Your task to perform on an android device: see creations saved in the google photos Image 0: 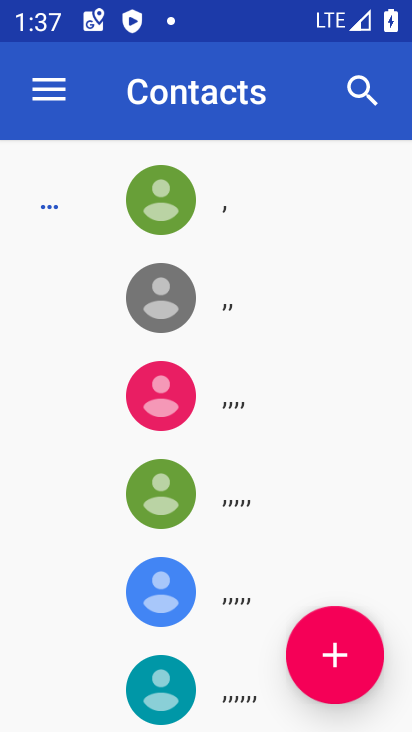
Step 0: drag from (244, 684) to (266, 336)
Your task to perform on an android device: see creations saved in the google photos Image 1: 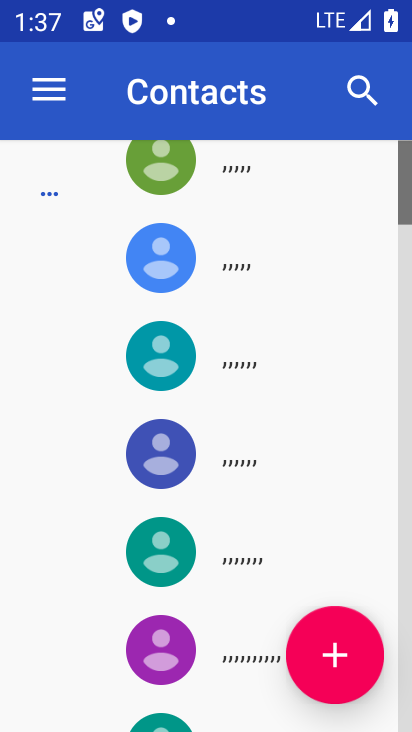
Step 1: press home button
Your task to perform on an android device: see creations saved in the google photos Image 2: 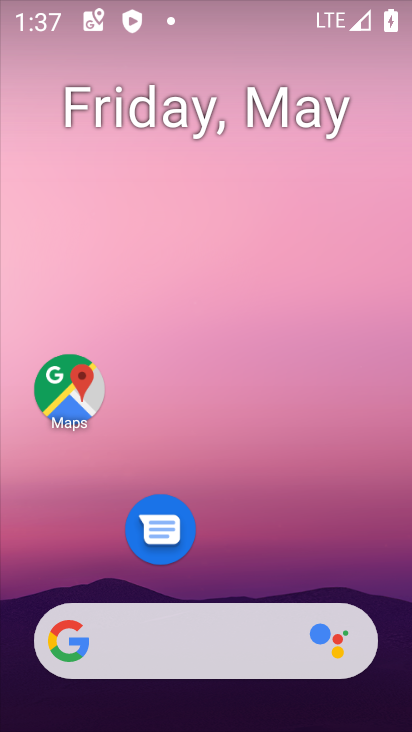
Step 2: drag from (245, 569) to (279, 6)
Your task to perform on an android device: see creations saved in the google photos Image 3: 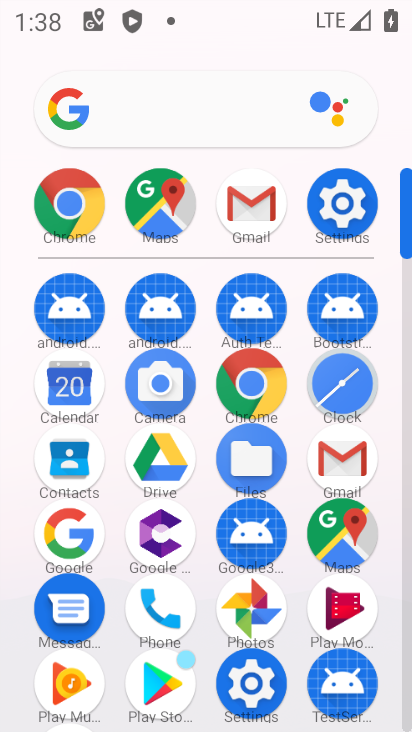
Step 3: click (263, 617)
Your task to perform on an android device: see creations saved in the google photos Image 4: 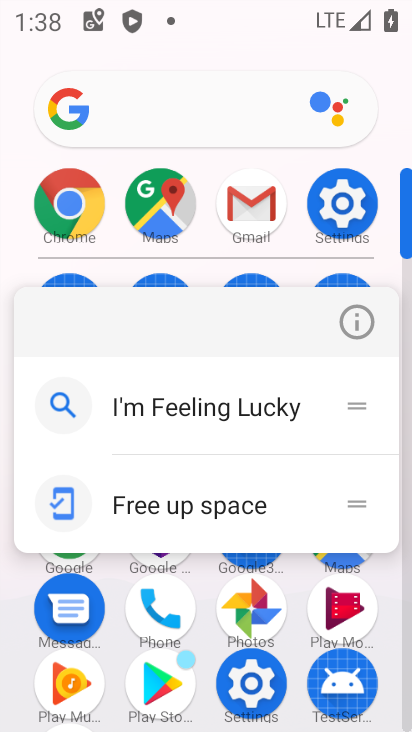
Step 4: click (345, 328)
Your task to perform on an android device: see creations saved in the google photos Image 5: 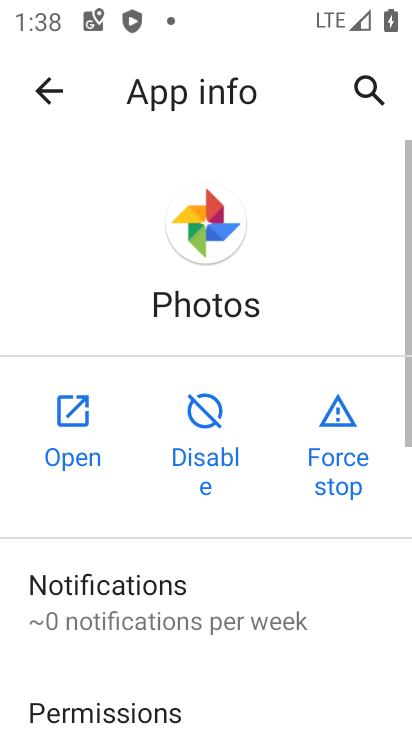
Step 5: click (71, 437)
Your task to perform on an android device: see creations saved in the google photos Image 6: 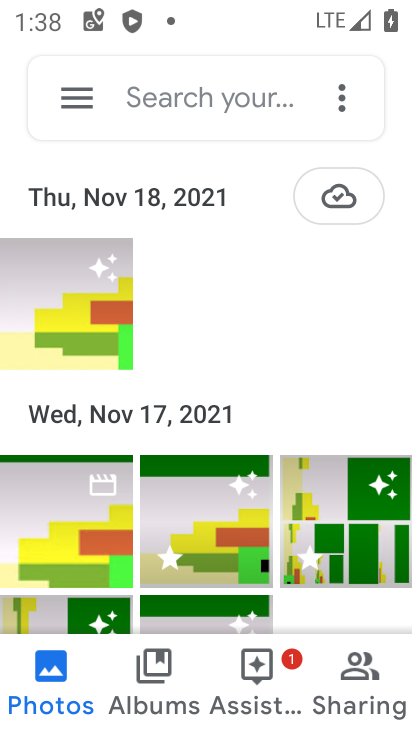
Step 6: click (169, 95)
Your task to perform on an android device: see creations saved in the google photos Image 7: 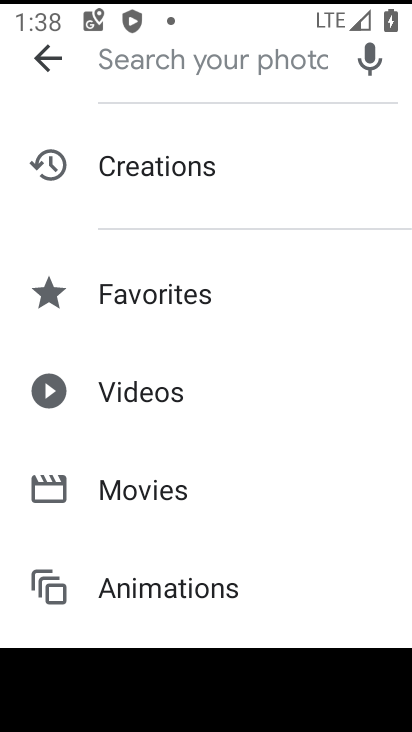
Step 7: click (162, 154)
Your task to perform on an android device: see creations saved in the google photos Image 8: 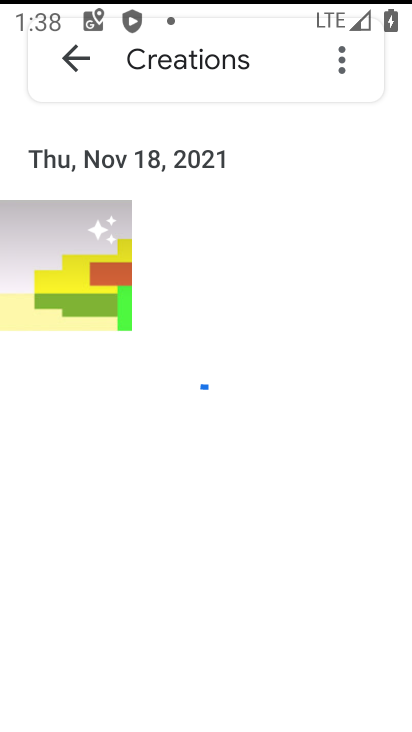
Step 8: drag from (151, 526) to (206, 215)
Your task to perform on an android device: see creations saved in the google photos Image 9: 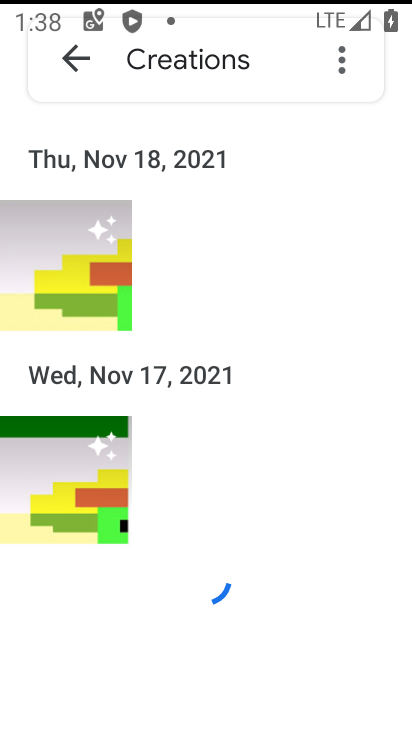
Step 9: drag from (188, 559) to (232, 251)
Your task to perform on an android device: see creations saved in the google photos Image 10: 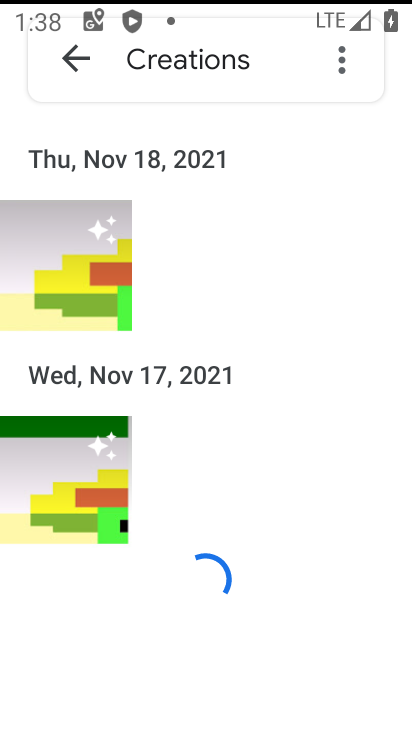
Step 10: drag from (179, 469) to (178, 191)
Your task to perform on an android device: see creations saved in the google photos Image 11: 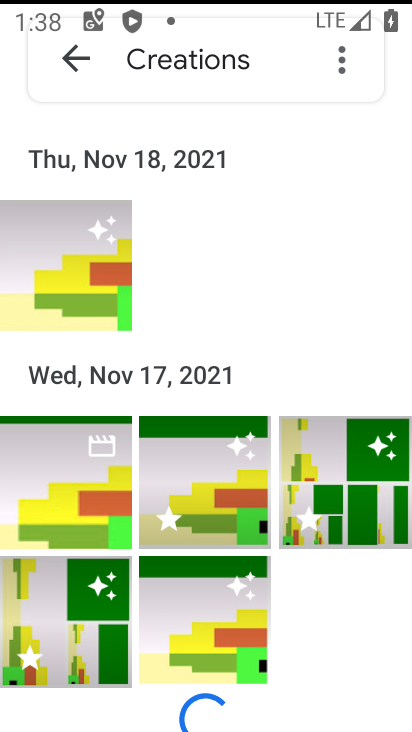
Step 11: drag from (151, 262) to (238, 438)
Your task to perform on an android device: see creations saved in the google photos Image 12: 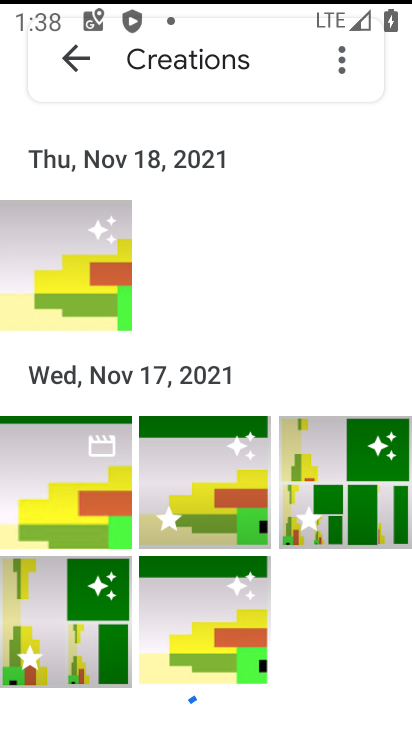
Step 12: click (90, 483)
Your task to perform on an android device: see creations saved in the google photos Image 13: 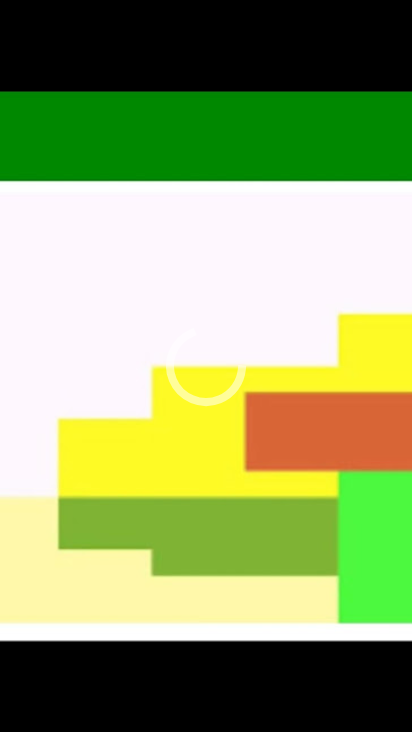
Step 13: task complete